Your task to perform on an android device: turn on notifications settings in the gmail app Image 0: 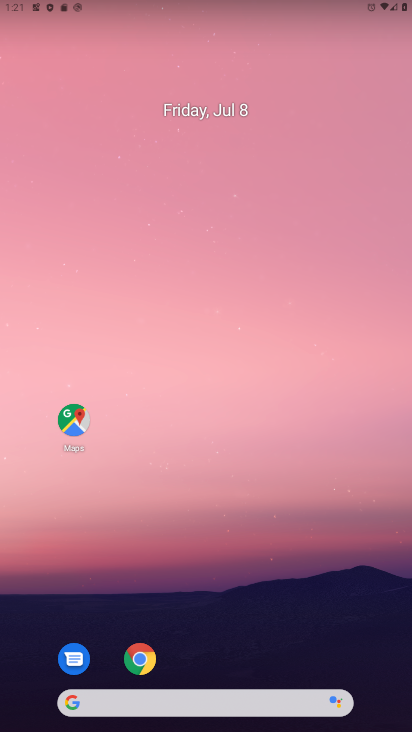
Step 0: drag from (264, 592) to (175, 181)
Your task to perform on an android device: turn on notifications settings in the gmail app Image 1: 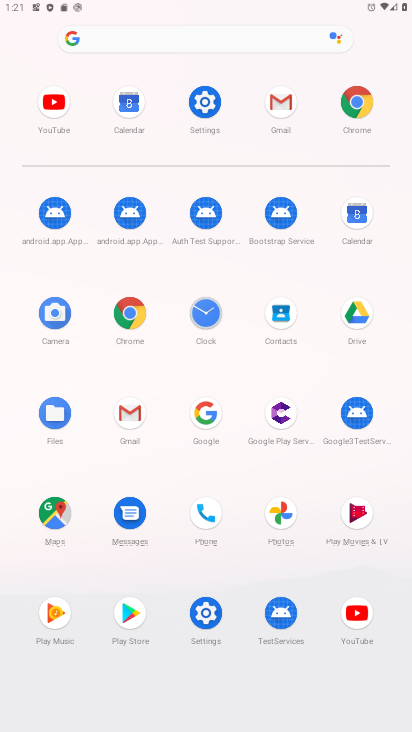
Step 1: click (125, 414)
Your task to perform on an android device: turn on notifications settings in the gmail app Image 2: 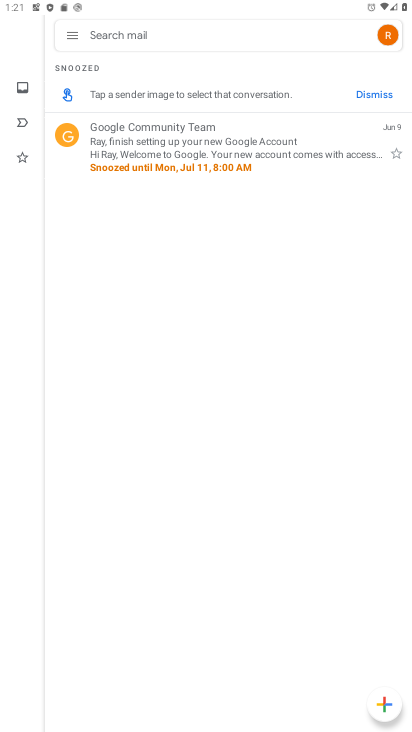
Step 2: click (66, 38)
Your task to perform on an android device: turn on notifications settings in the gmail app Image 3: 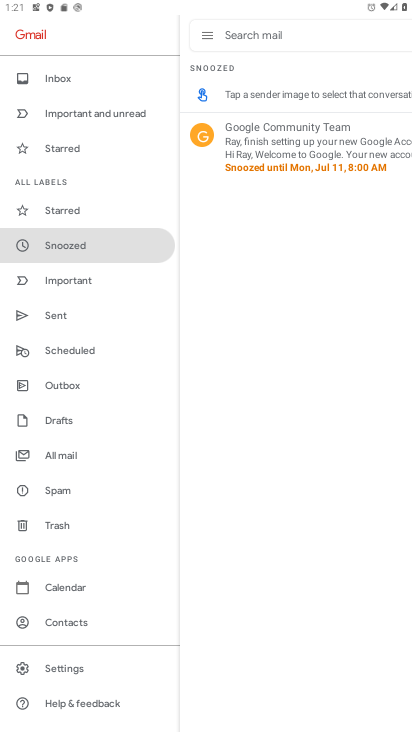
Step 3: click (71, 671)
Your task to perform on an android device: turn on notifications settings in the gmail app Image 4: 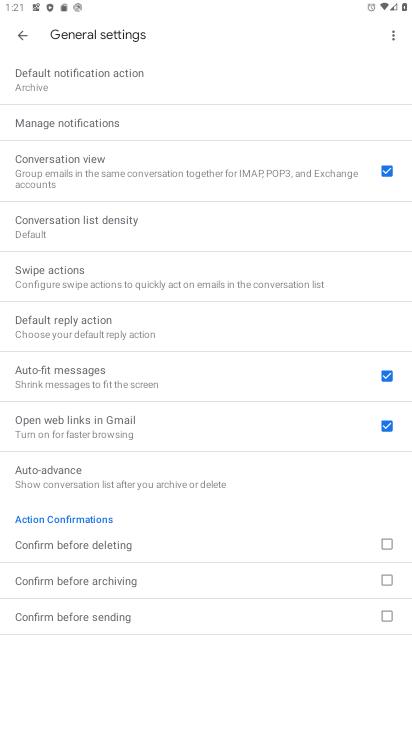
Step 4: click (65, 116)
Your task to perform on an android device: turn on notifications settings in the gmail app Image 5: 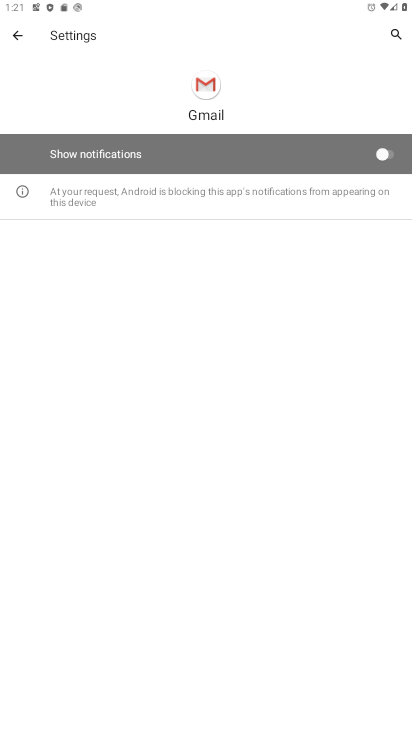
Step 5: click (379, 159)
Your task to perform on an android device: turn on notifications settings in the gmail app Image 6: 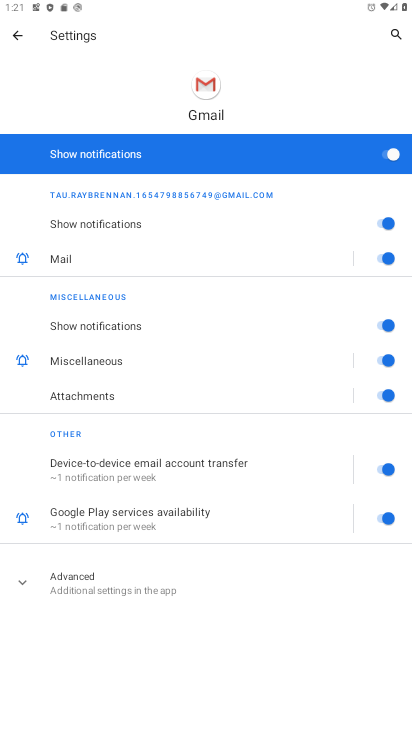
Step 6: task complete